Your task to perform on an android device: Open the map Image 0: 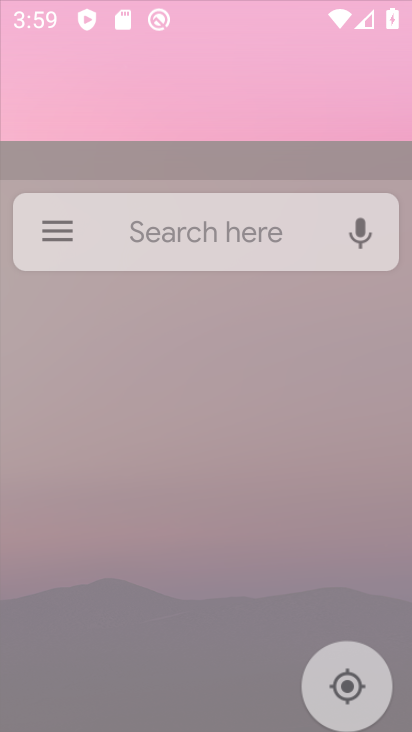
Step 0: click (388, 48)
Your task to perform on an android device: Open the map Image 1: 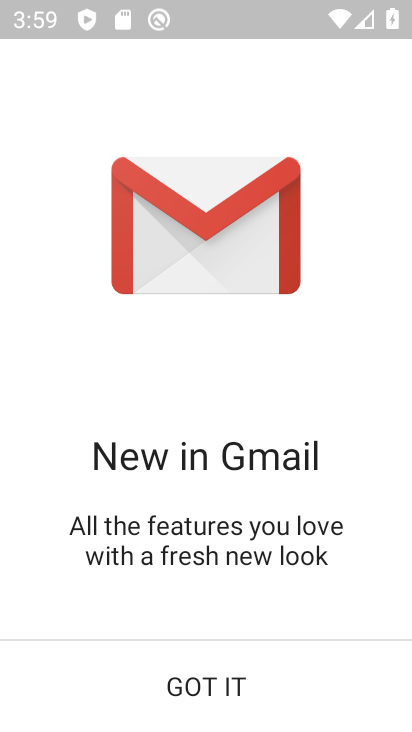
Step 1: click (221, 693)
Your task to perform on an android device: Open the map Image 2: 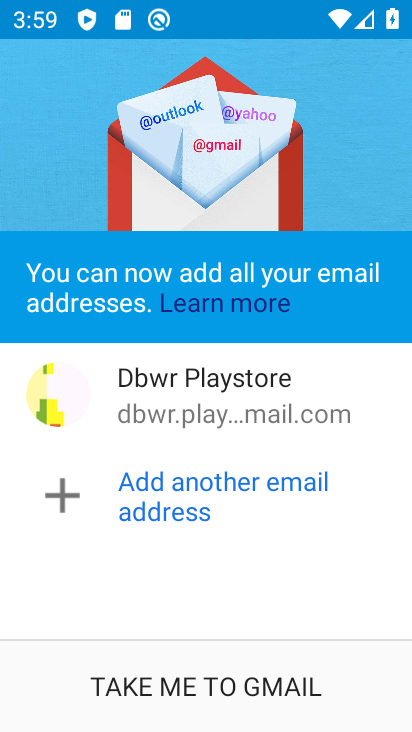
Step 2: press home button
Your task to perform on an android device: Open the map Image 3: 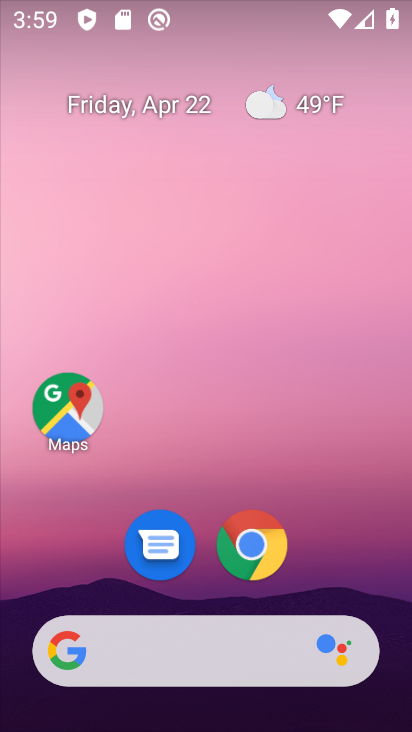
Step 3: drag from (342, 567) to (365, 92)
Your task to perform on an android device: Open the map Image 4: 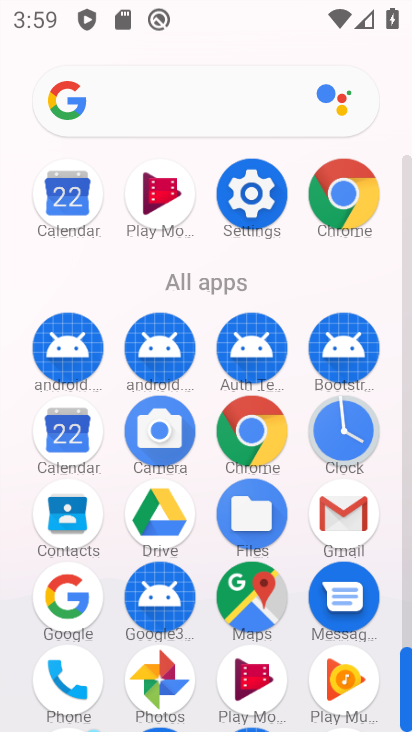
Step 4: click (272, 594)
Your task to perform on an android device: Open the map Image 5: 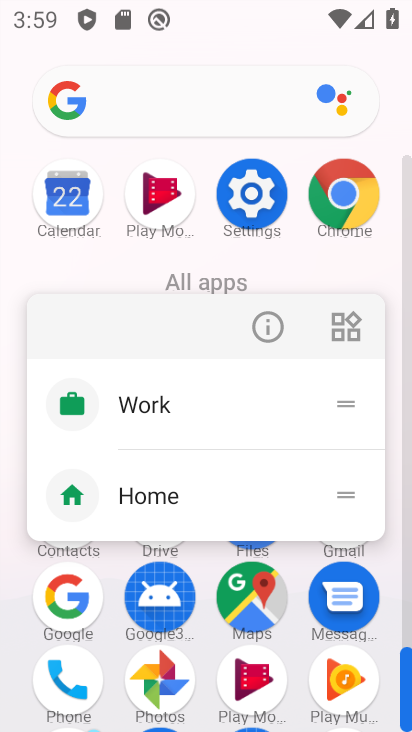
Step 5: click (272, 593)
Your task to perform on an android device: Open the map Image 6: 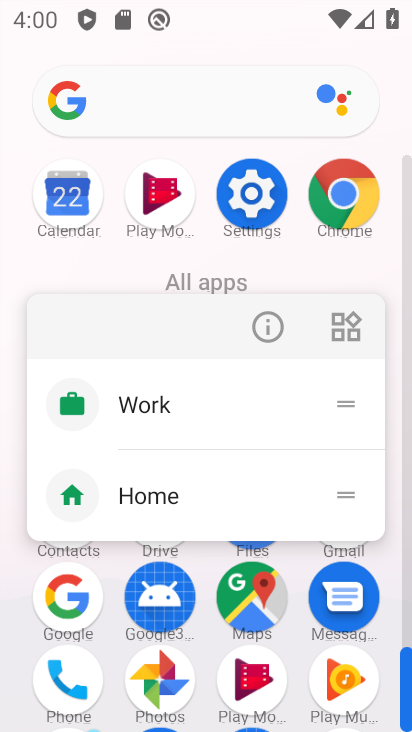
Step 6: click (272, 594)
Your task to perform on an android device: Open the map Image 7: 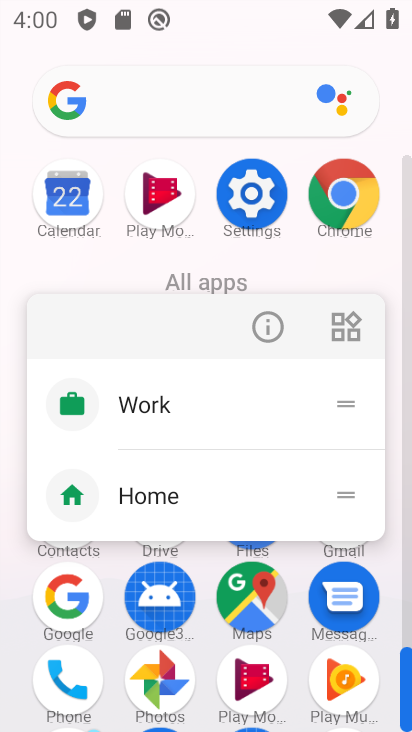
Step 7: click (272, 595)
Your task to perform on an android device: Open the map Image 8: 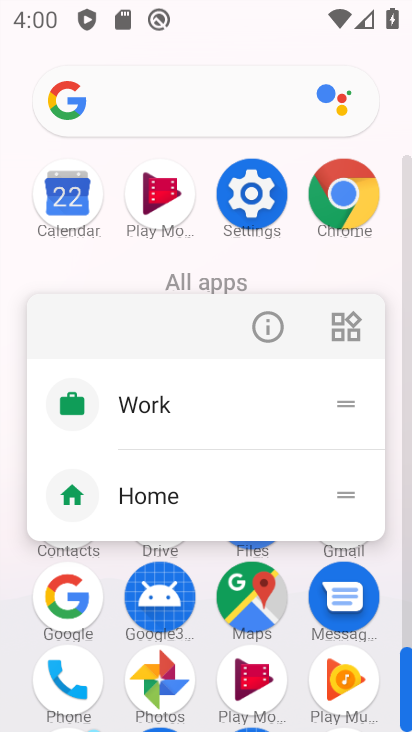
Step 8: click (272, 594)
Your task to perform on an android device: Open the map Image 9: 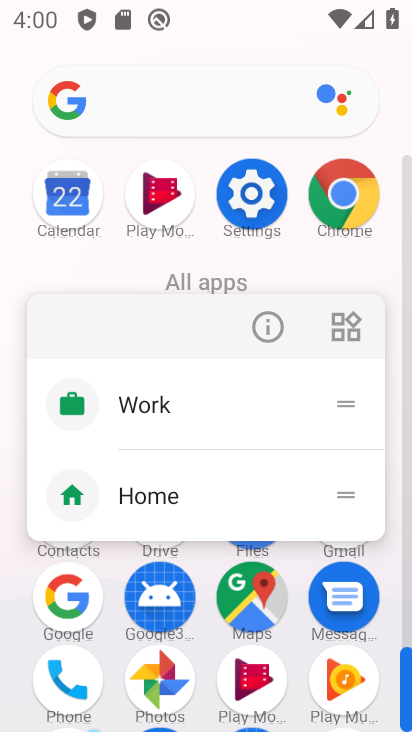
Step 9: click (272, 593)
Your task to perform on an android device: Open the map Image 10: 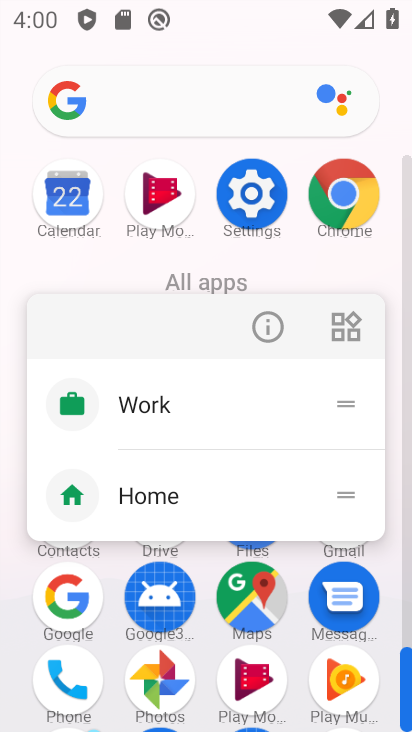
Step 10: click (272, 592)
Your task to perform on an android device: Open the map Image 11: 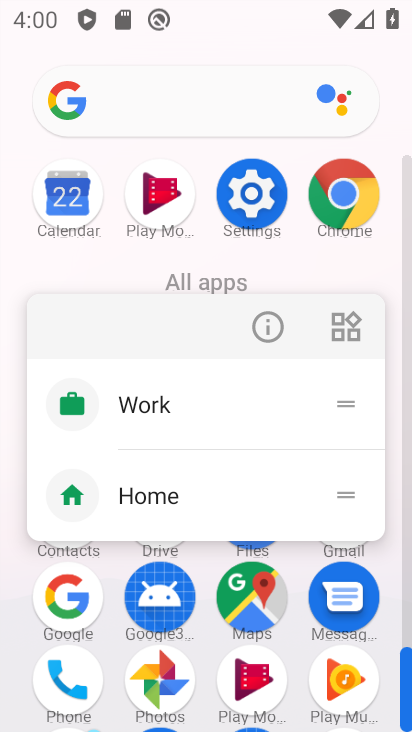
Step 11: click (272, 592)
Your task to perform on an android device: Open the map Image 12: 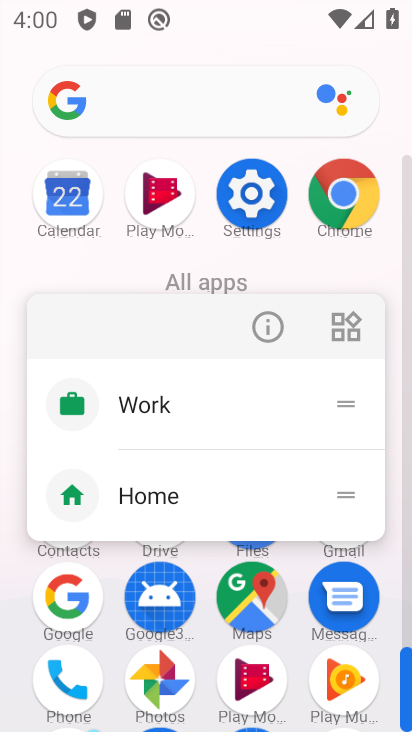
Step 12: click (255, 599)
Your task to perform on an android device: Open the map Image 13: 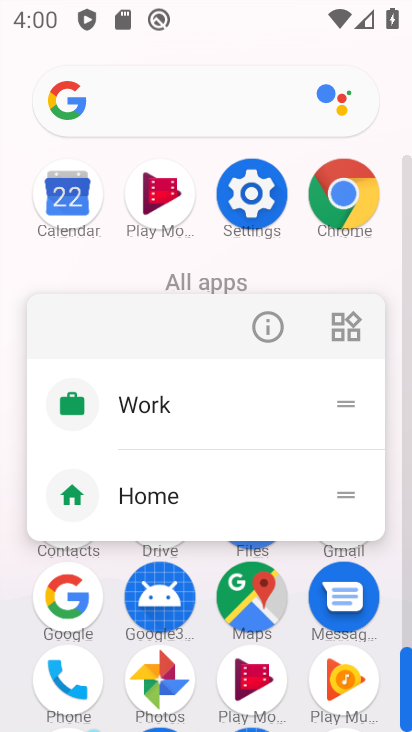
Step 13: click (255, 599)
Your task to perform on an android device: Open the map Image 14: 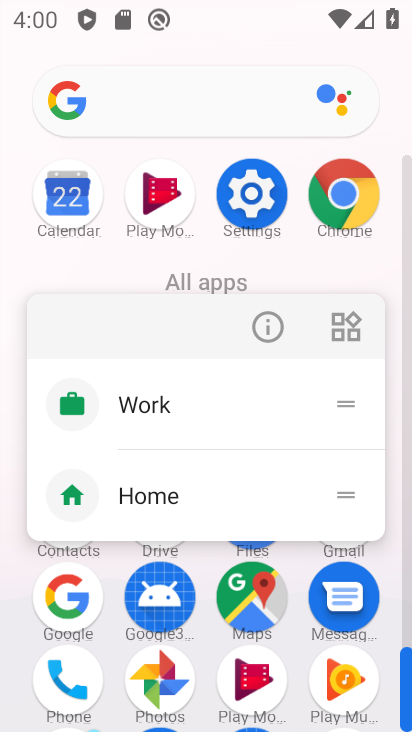
Step 14: click (255, 597)
Your task to perform on an android device: Open the map Image 15: 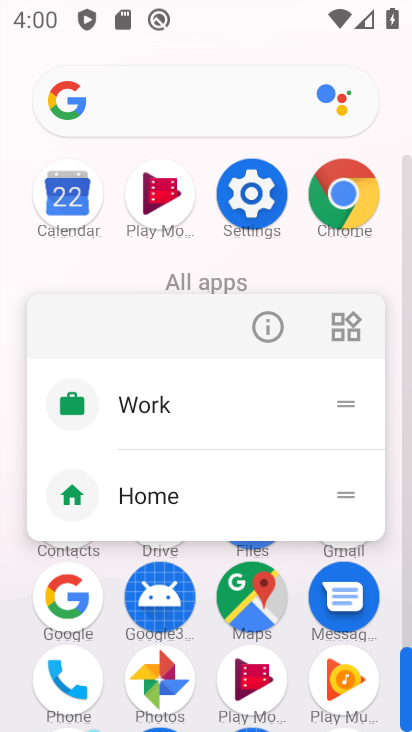
Step 15: click (261, 573)
Your task to perform on an android device: Open the map Image 16: 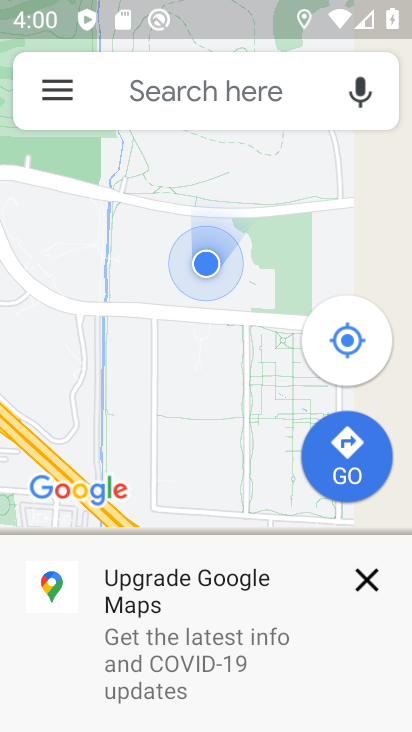
Step 16: task complete